Your task to perform on an android device: Open calendar and show me the first week of next month Image 0: 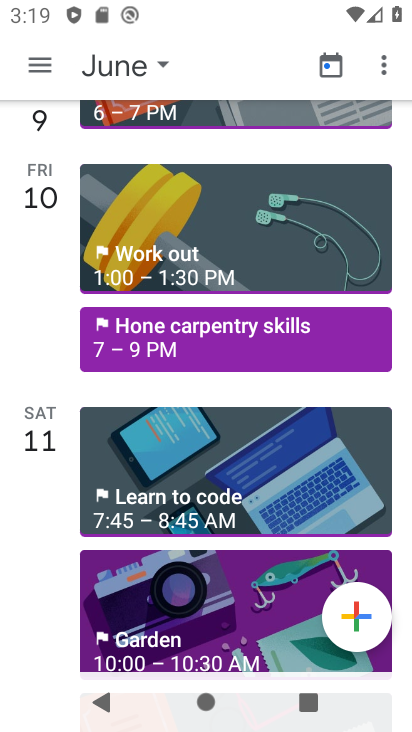
Step 0: press home button
Your task to perform on an android device: Open calendar and show me the first week of next month Image 1: 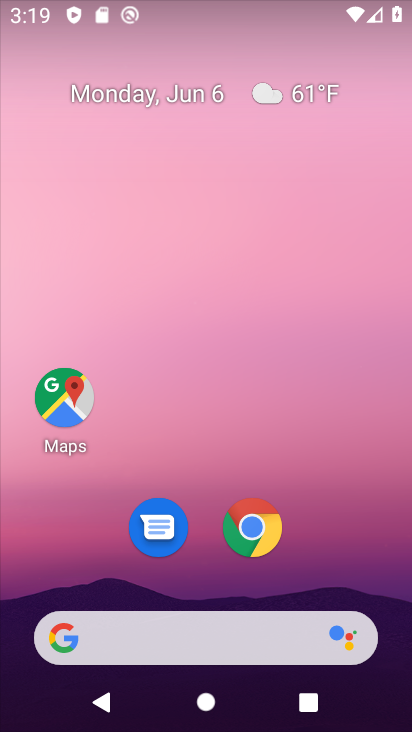
Step 1: drag from (341, 574) to (246, 116)
Your task to perform on an android device: Open calendar and show me the first week of next month Image 2: 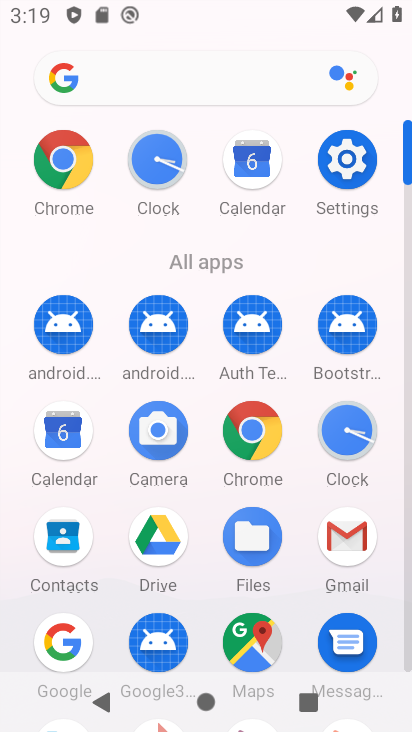
Step 2: click (71, 432)
Your task to perform on an android device: Open calendar and show me the first week of next month Image 3: 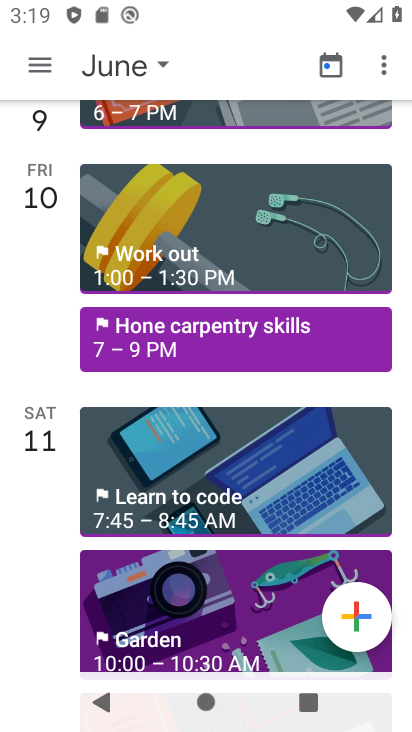
Step 3: click (157, 64)
Your task to perform on an android device: Open calendar and show me the first week of next month Image 4: 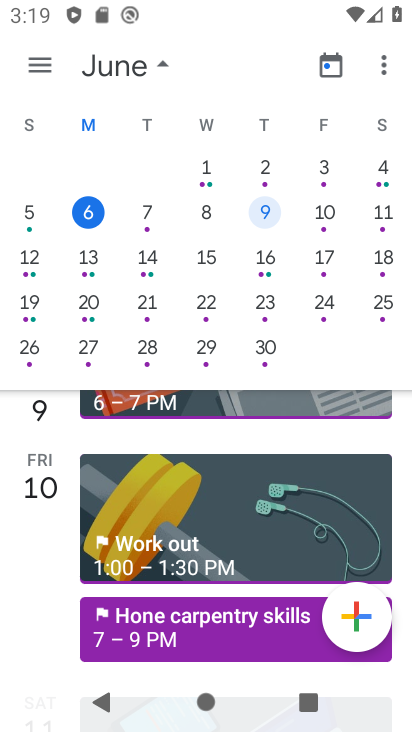
Step 4: drag from (393, 235) to (3, 241)
Your task to perform on an android device: Open calendar and show me the first week of next month Image 5: 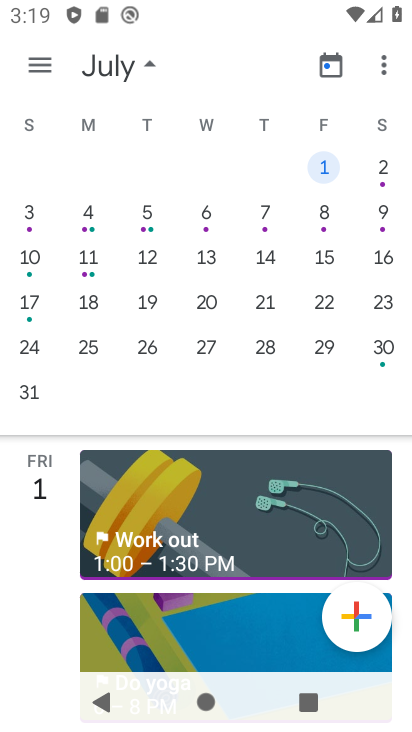
Step 5: click (91, 207)
Your task to perform on an android device: Open calendar and show me the first week of next month Image 6: 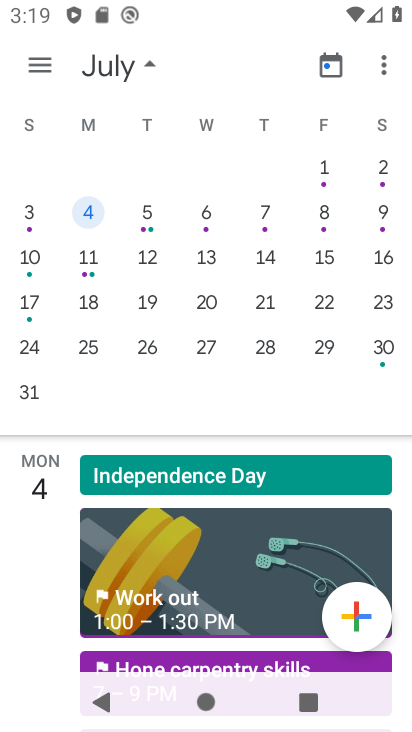
Step 6: click (39, 65)
Your task to perform on an android device: Open calendar and show me the first week of next month Image 7: 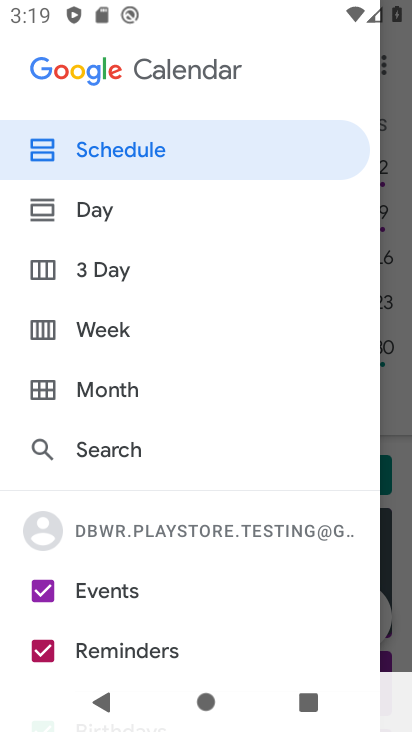
Step 7: click (127, 324)
Your task to perform on an android device: Open calendar and show me the first week of next month Image 8: 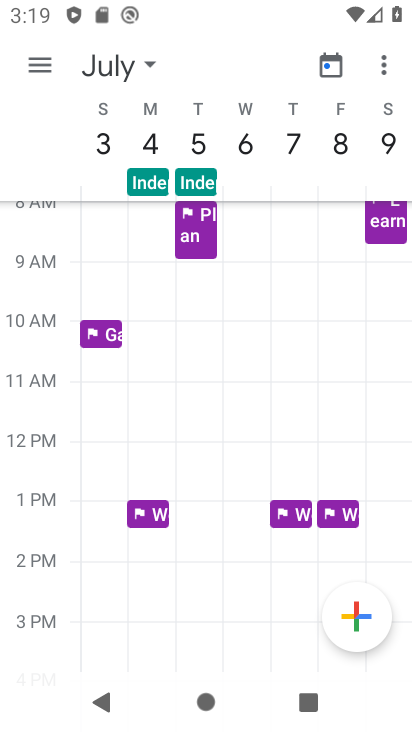
Step 8: task complete